Your task to perform on an android device: clear history in the chrome app Image 0: 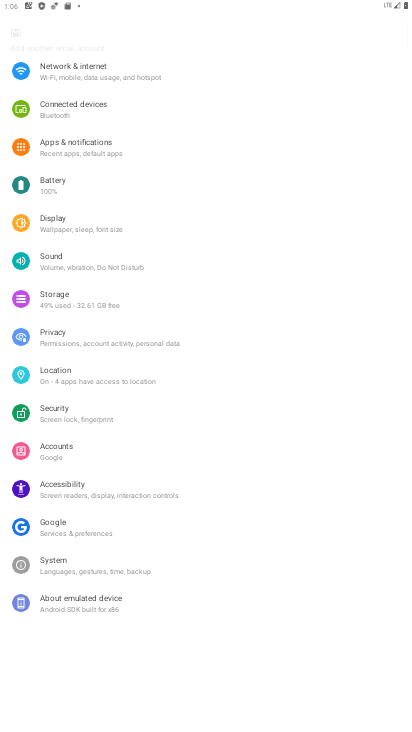
Step 0: press home button
Your task to perform on an android device: clear history in the chrome app Image 1: 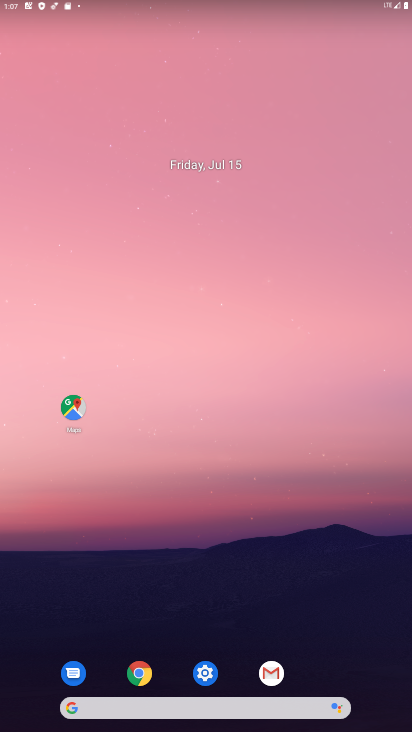
Step 1: click (149, 669)
Your task to perform on an android device: clear history in the chrome app Image 2: 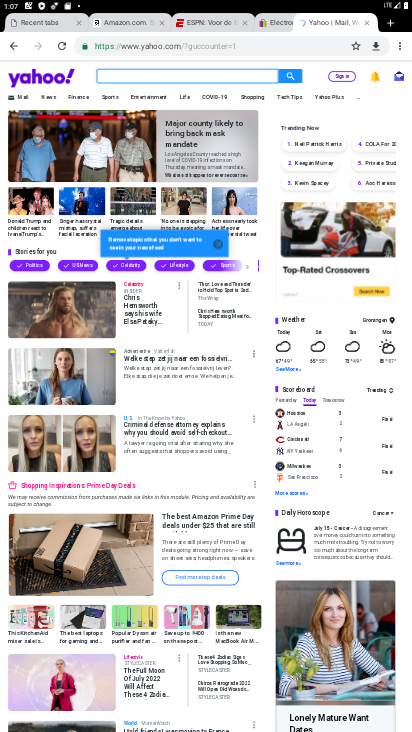
Step 2: click (400, 49)
Your task to perform on an android device: clear history in the chrome app Image 3: 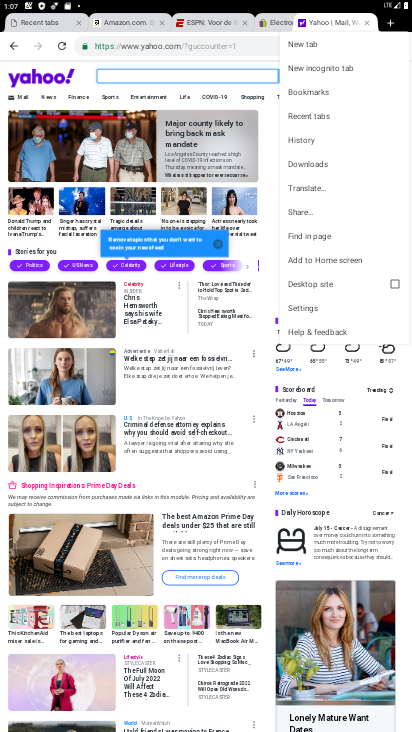
Step 3: click (312, 138)
Your task to perform on an android device: clear history in the chrome app Image 4: 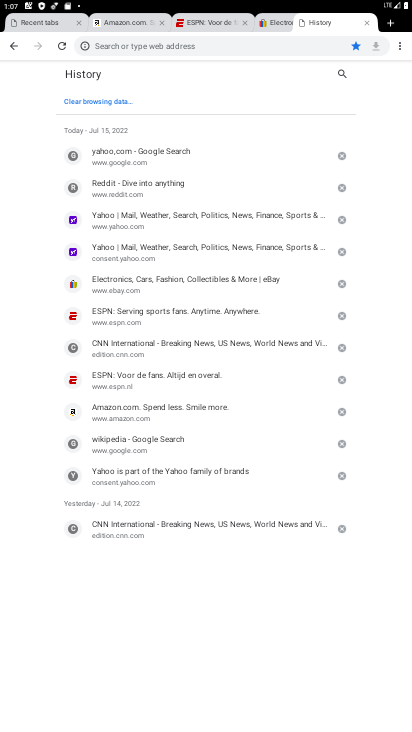
Step 4: click (119, 100)
Your task to perform on an android device: clear history in the chrome app Image 5: 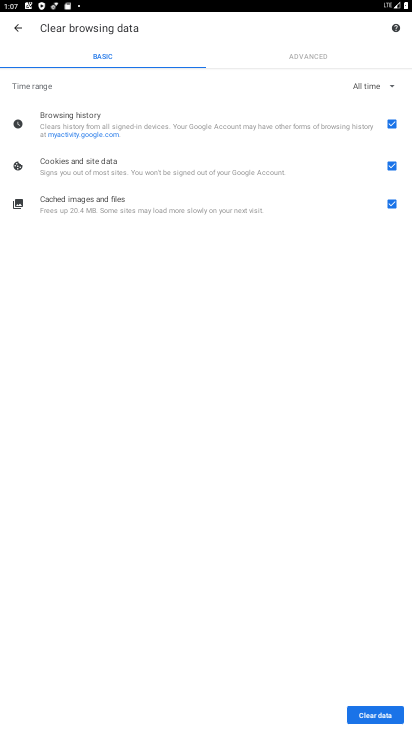
Step 5: click (363, 718)
Your task to perform on an android device: clear history in the chrome app Image 6: 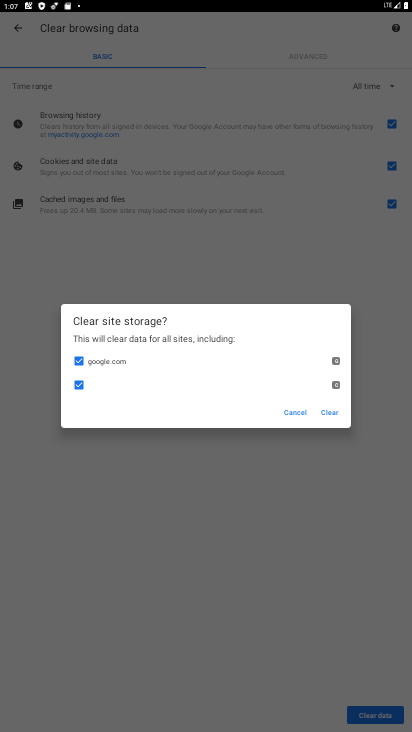
Step 6: click (322, 416)
Your task to perform on an android device: clear history in the chrome app Image 7: 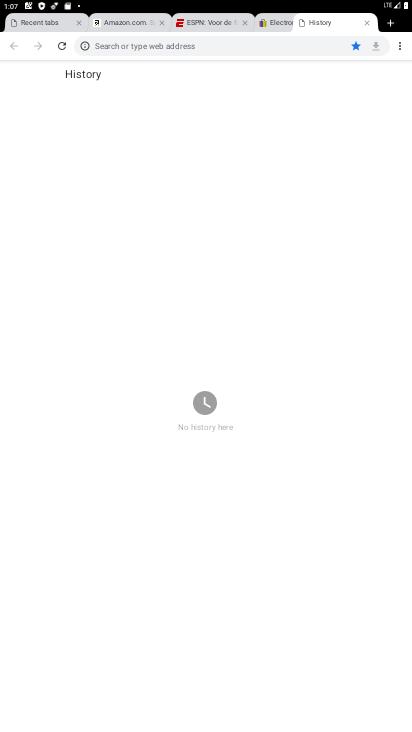
Step 7: task complete